Your task to perform on an android device: Open calendar and show me the first week of next month Image 0: 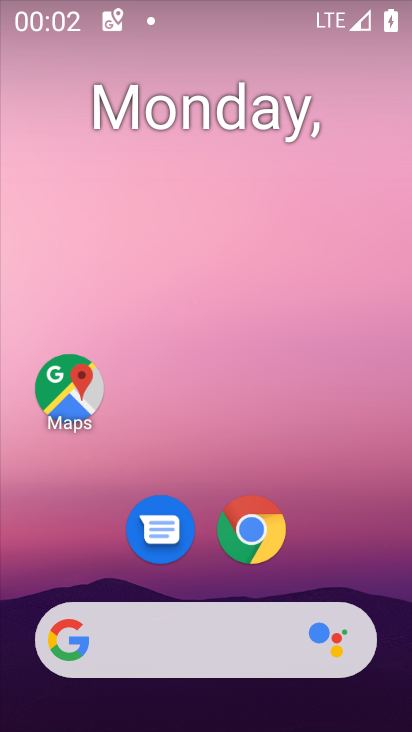
Step 0: drag from (349, 556) to (293, 35)
Your task to perform on an android device: Open calendar and show me the first week of next month Image 1: 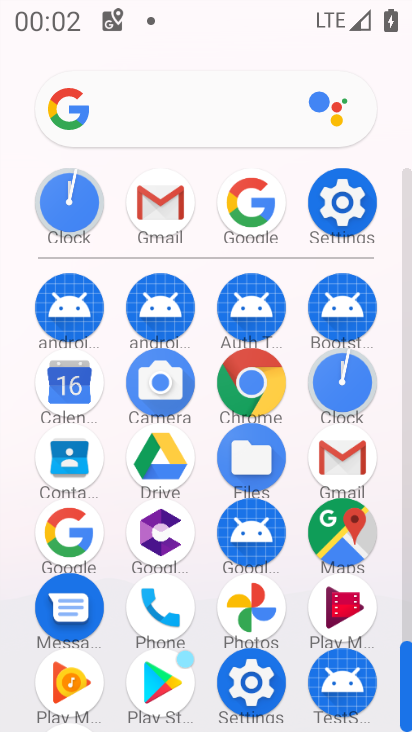
Step 1: click (66, 387)
Your task to perform on an android device: Open calendar and show me the first week of next month Image 2: 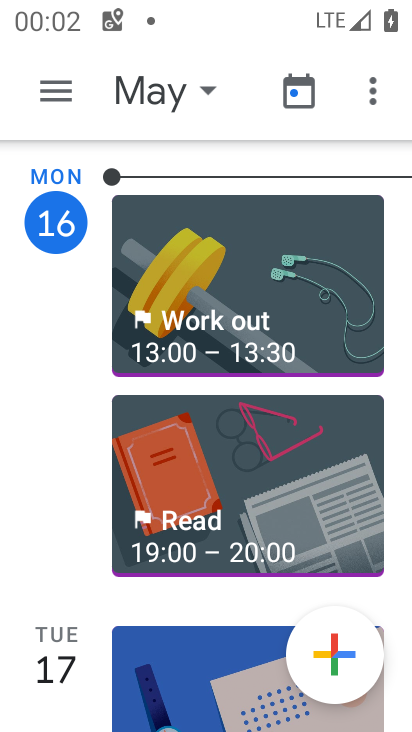
Step 2: click (210, 89)
Your task to perform on an android device: Open calendar and show me the first week of next month Image 3: 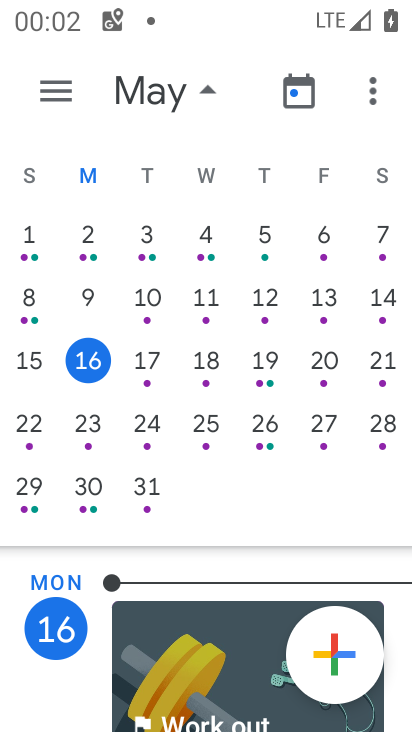
Step 3: drag from (360, 333) to (10, 337)
Your task to perform on an android device: Open calendar and show me the first week of next month Image 4: 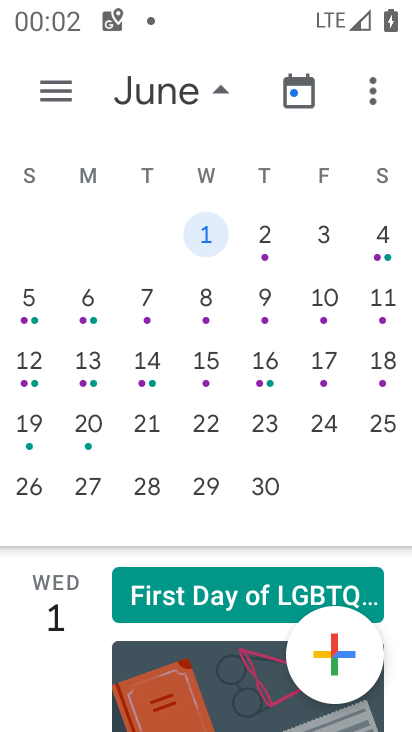
Step 4: click (85, 299)
Your task to perform on an android device: Open calendar and show me the first week of next month Image 5: 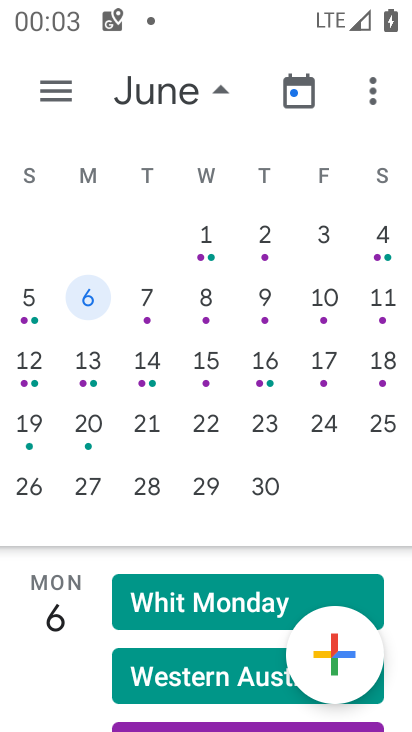
Step 5: click (58, 93)
Your task to perform on an android device: Open calendar and show me the first week of next month Image 6: 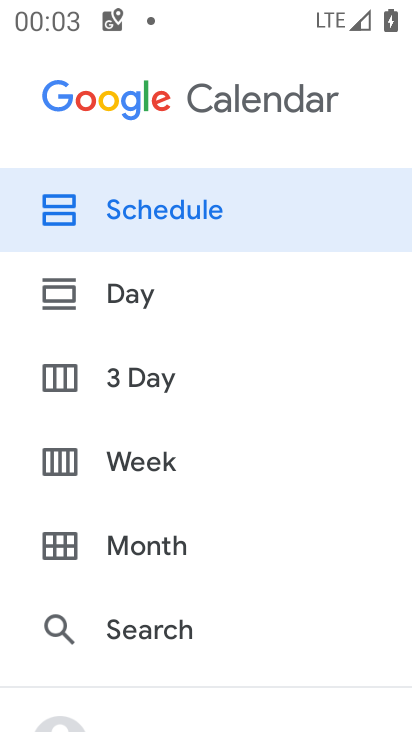
Step 6: click (150, 451)
Your task to perform on an android device: Open calendar and show me the first week of next month Image 7: 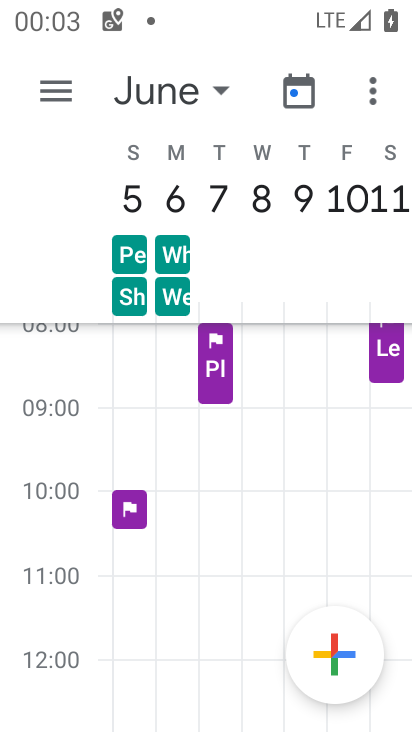
Step 7: task complete